Your task to perform on an android device: turn on translation in the chrome app Image 0: 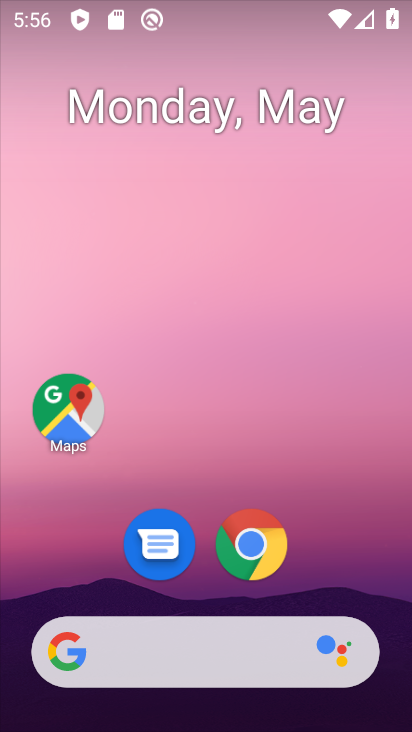
Step 0: click (259, 537)
Your task to perform on an android device: turn on translation in the chrome app Image 1: 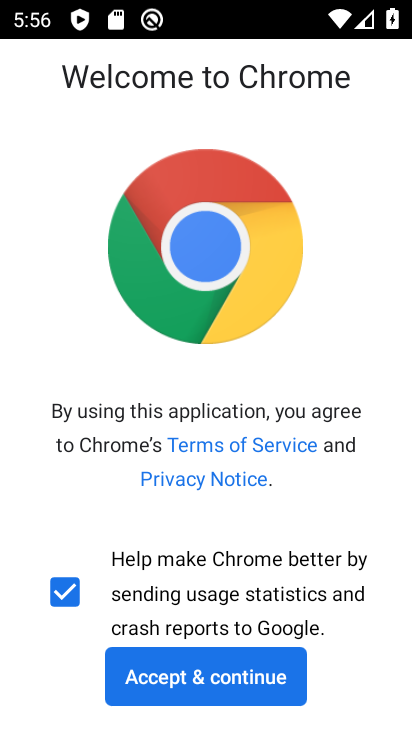
Step 1: click (221, 652)
Your task to perform on an android device: turn on translation in the chrome app Image 2: 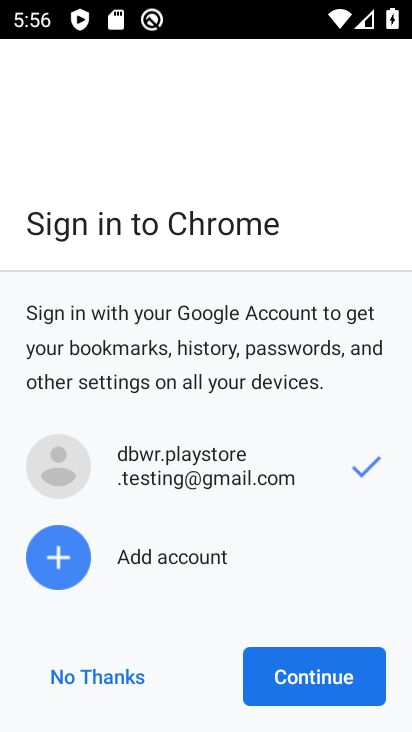
Step 2: click (365, 673)
Your task to perform on an android device: turn on translation in the chrome app Image 3: 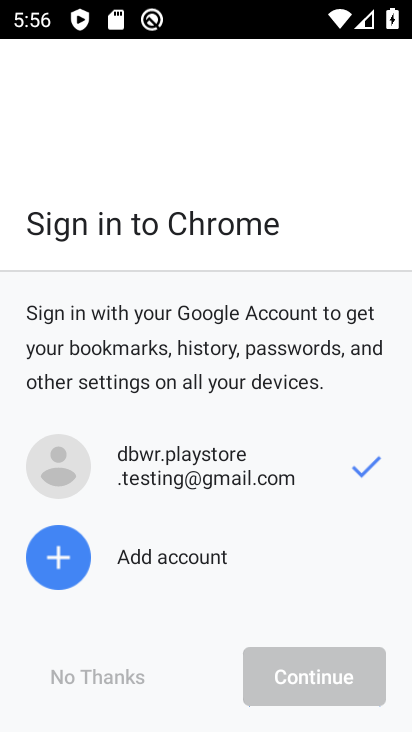
Step 3: click (355, 644)
Your task to perform on an android device: turn on translation in the chrome app Image 4: 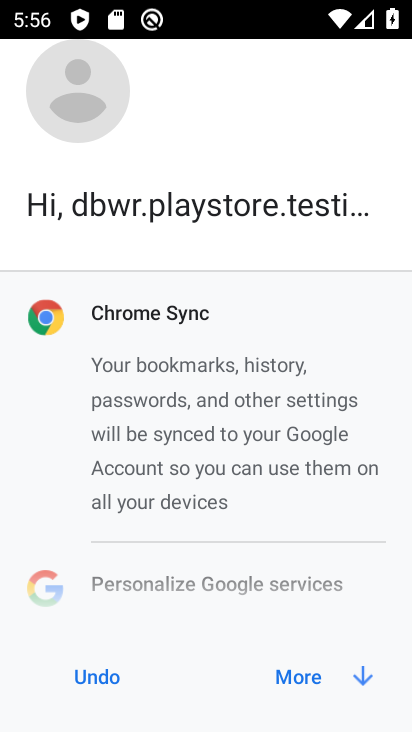
Step 4: click (349, 658)
Your task to perform on an android device: turn on translation in the chrome app Image 5: 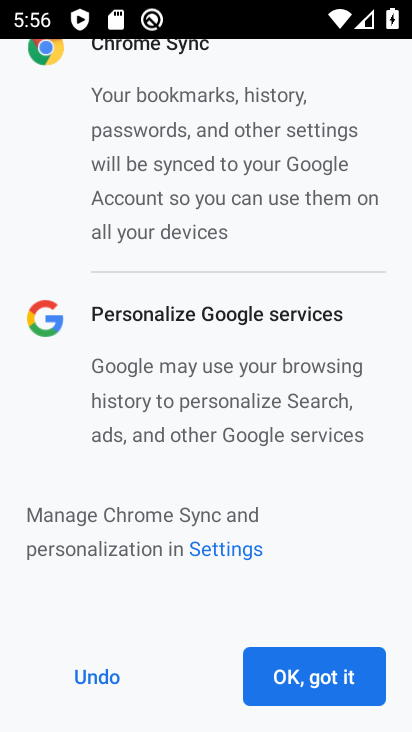
Step 5: click (332, 668)
Your task to perform on an android device: turn on translation in the chrome app Image 6: 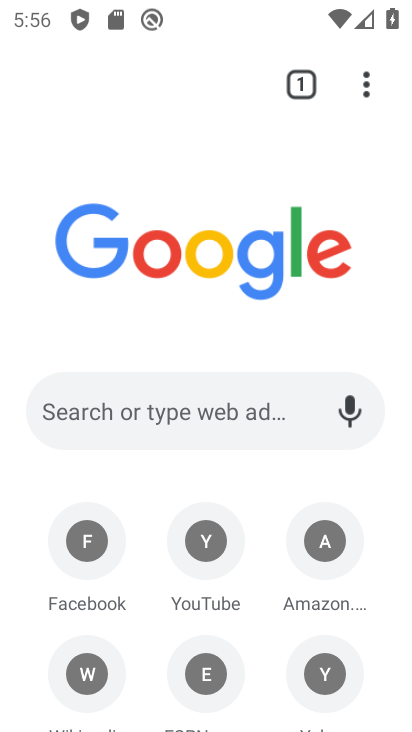
Step 6: click (362, 81)
Your task to perform on an android device: turn on translation in the chrome app Image 7: 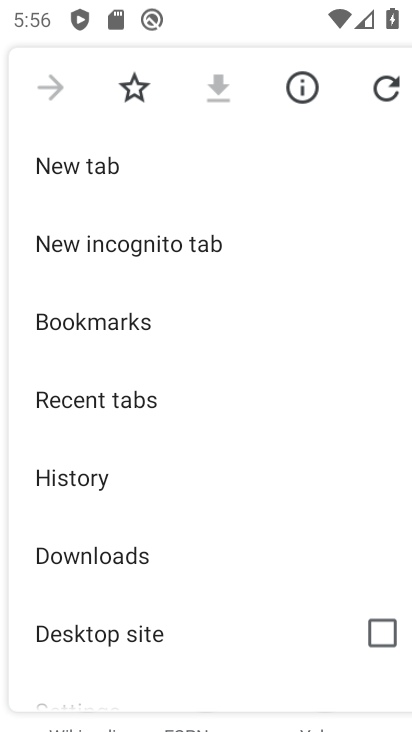
Step 7: drag from (213, 570) to (176, 143)
Your task to perform on an android device: turn on translation in the chrome app Image 8: 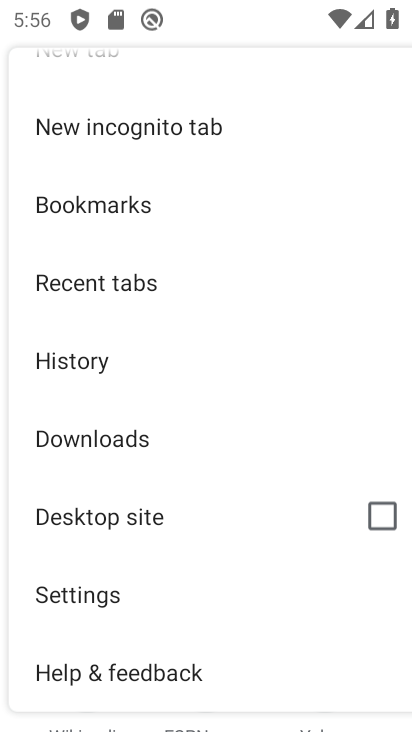
Step 8: click (157, 601)
Your task to perform on an android device: turn on translation in the chrome app Image 9: 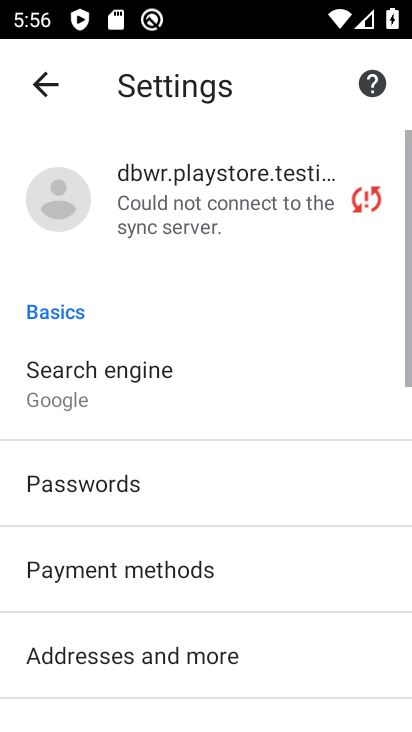
Step 9: drag from (234, 498) to (225, 79)
Your task to perform on an android device: turn on translation in the chrome app Image 10: 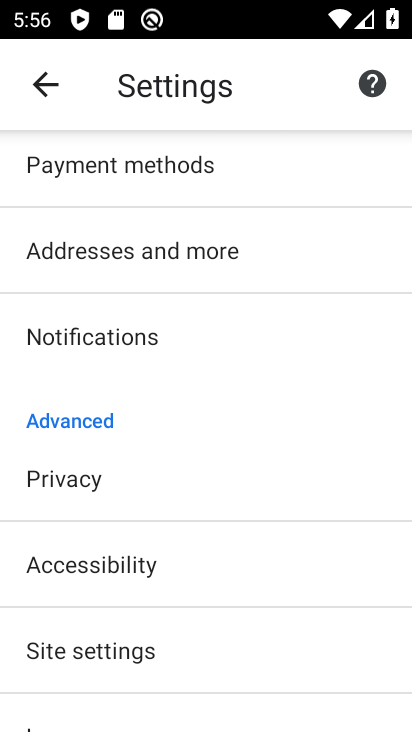
Step 10: drag from (206, 600) to (206, 220)
Your task to perform on an android device: turn on translation in the chrome app Image 11: 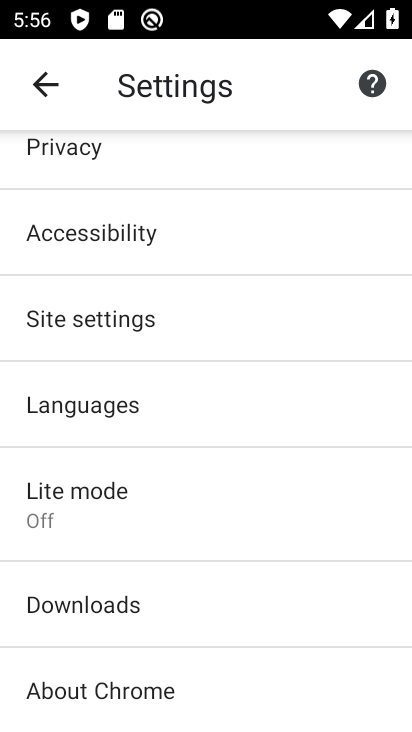
Step 11: click (158, 406)
Your task to perform on an android device: turn on translation in the chrome app Image 12: 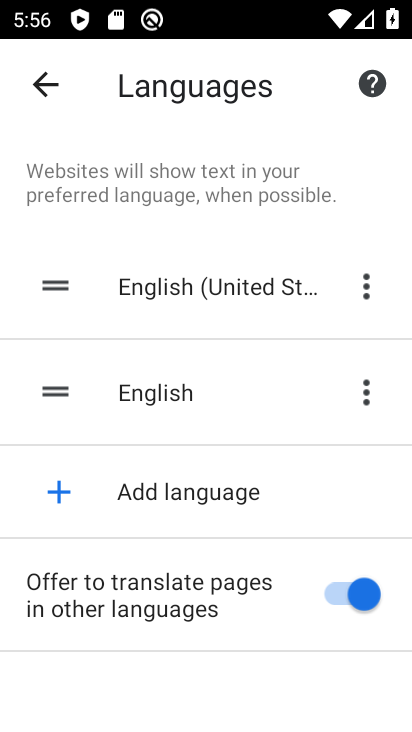
Step 12: task complete